Your task to perform on an android device: toggle notifications settings in the gmail app Image 0: 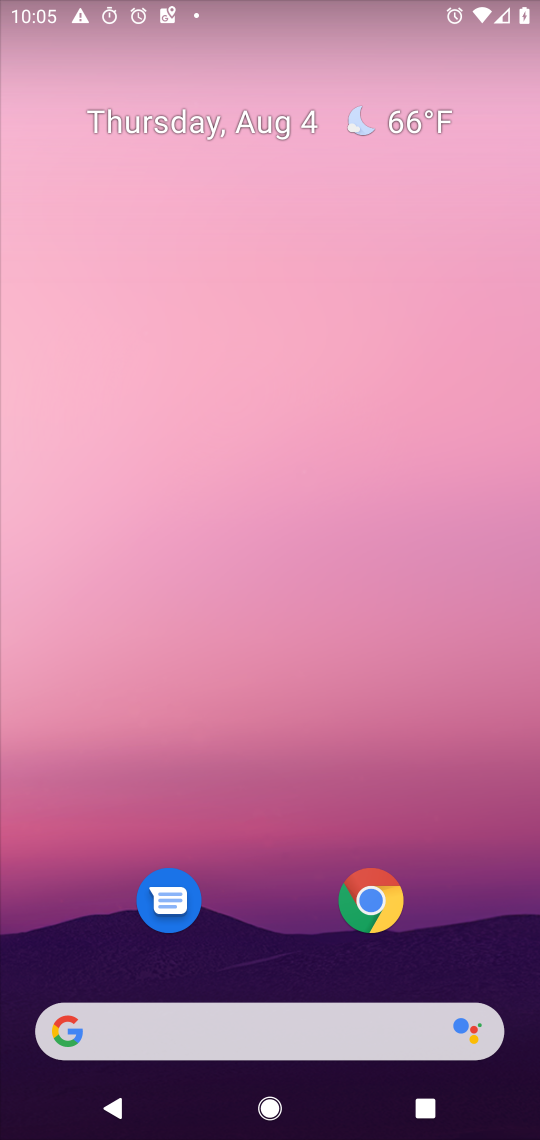
Step 0: drag from (201, 1039) to (328, 55)
Your task to perform on an android device: toggle notifications settings in the gmail app Image 1: 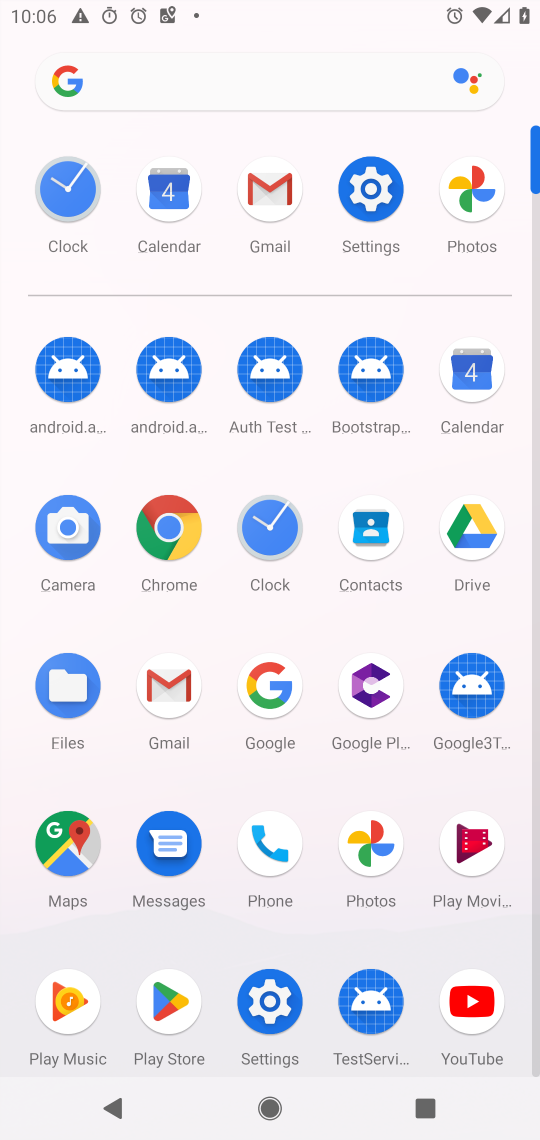
Step 1: click (268, 183)
Your task to perform on an android device: toggle notifications settings in the gmail app Image 2: 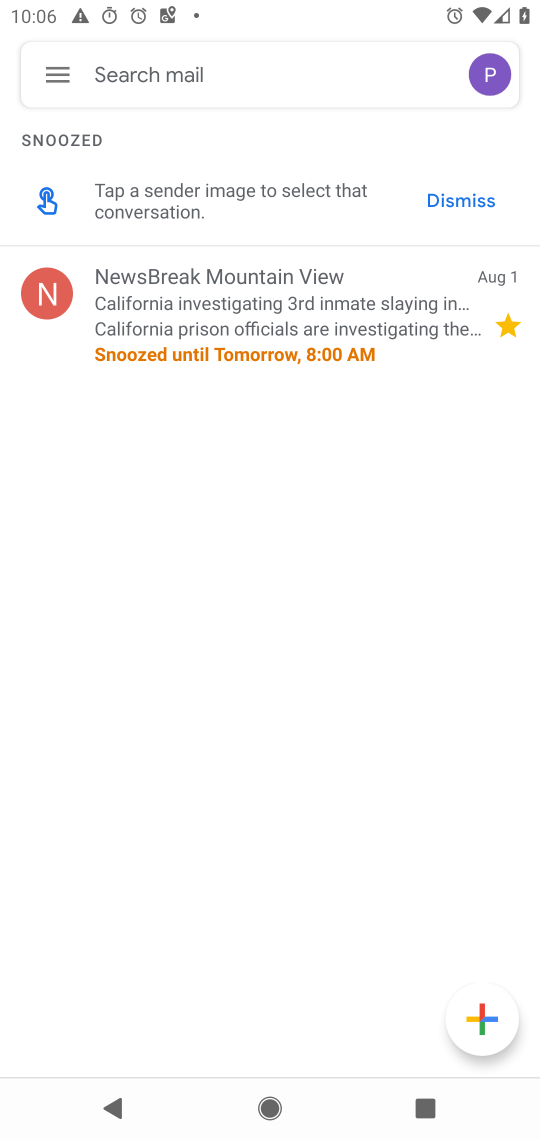
Step 2: click (60, 76)
Your task to perform on an android device: toggle notifications settings in the gmail app Image 3: 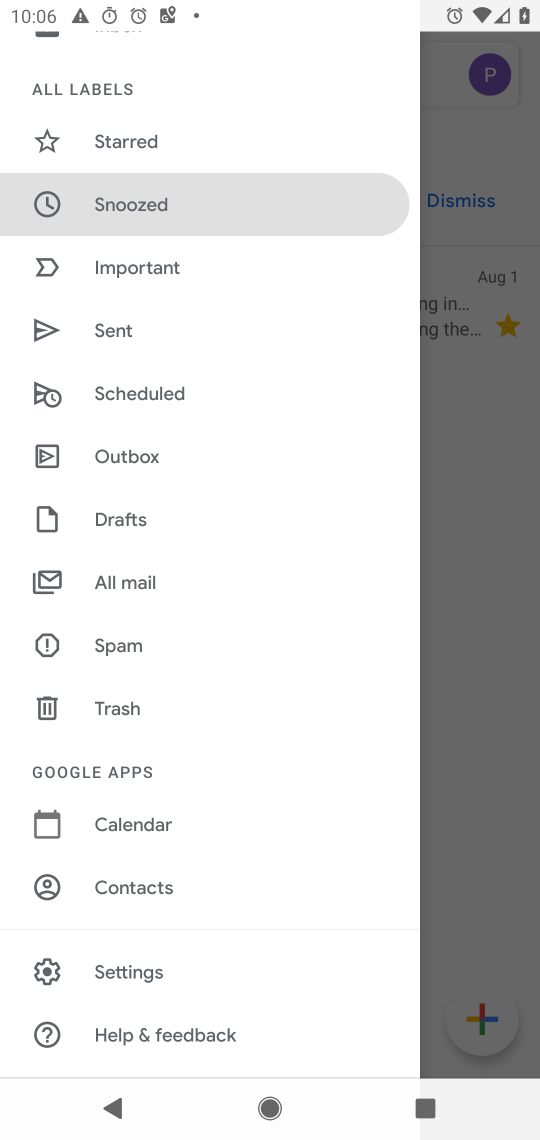
Step 3: click (119, 968)
Your task to perform on an android device: toggle notifications settings in the gmail app Image 4: 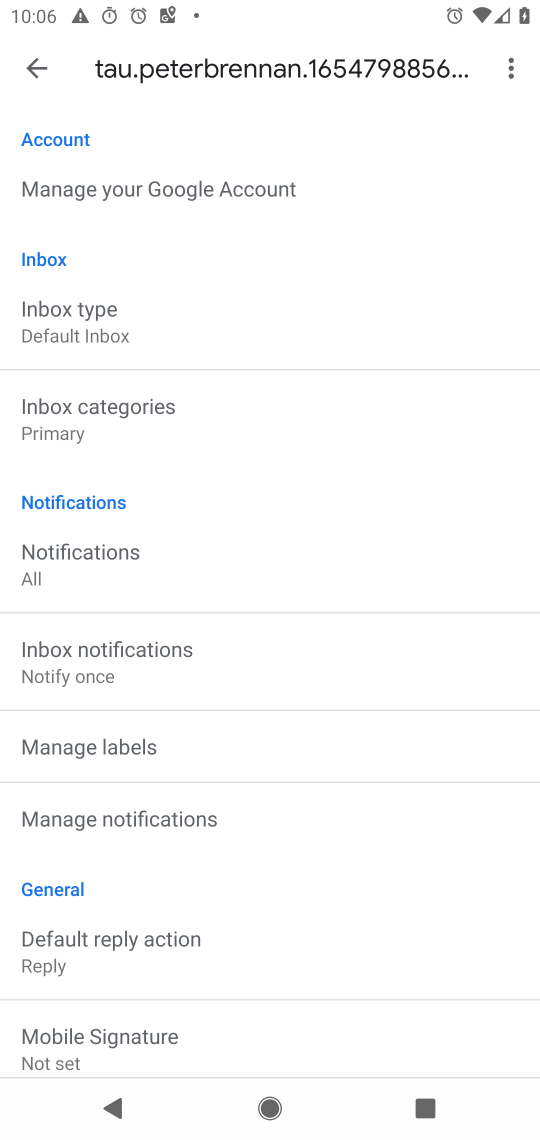
Step 4: click (92, 814)
Your task to perform on an android device: toggle notifications settings in the gmail app Image 5: 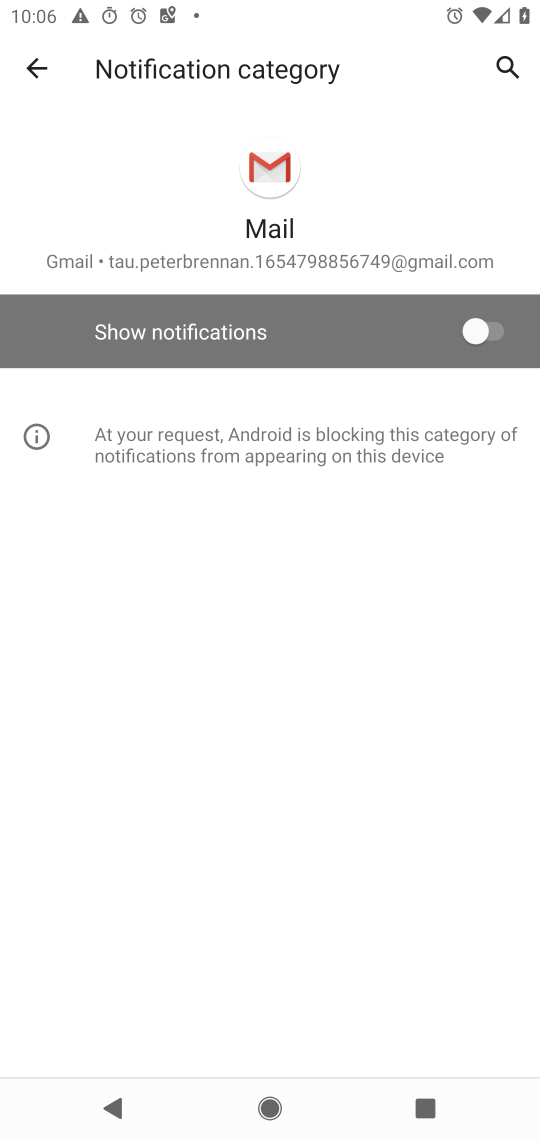
Step 5: click (479, 334)
Your task to perform on an android device: toggle notifications settings in the gmail app Image 6: 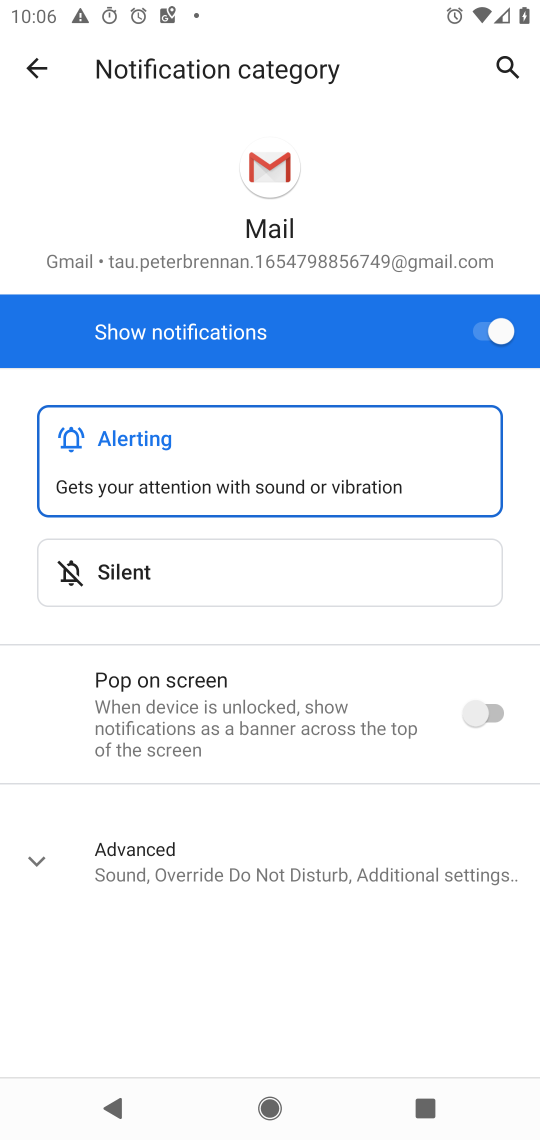
Step 6: task complete